Your task to perform on an android device: turn notification dots off Image 0: 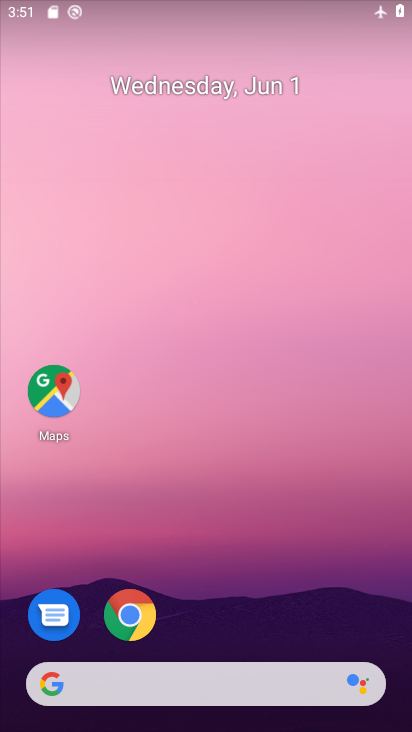
Step 0: drag from (268, 404) to (232, 170)
Your task to perform on an android device: turn notification dots off Image 1: 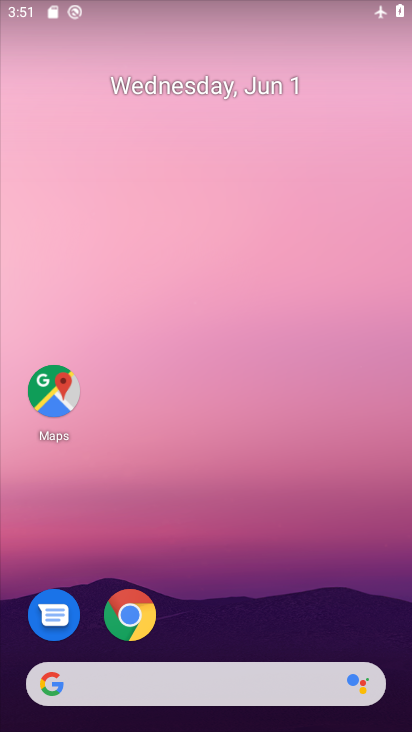
Step 1: drag from (252, 452) to (303, 170)
Your task to perform on an android device: turn notification dots off Image 2: 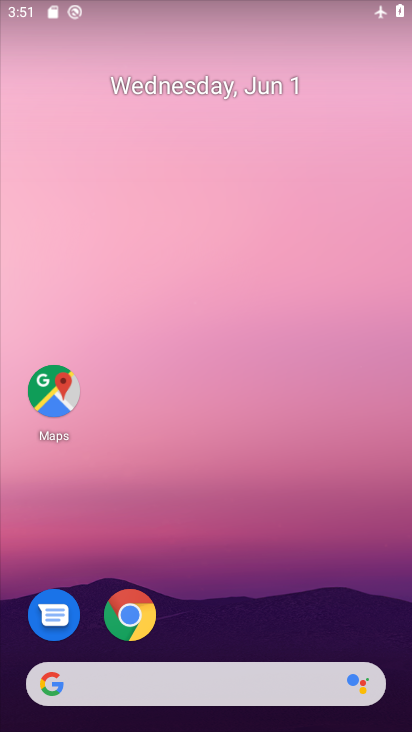
Step 2: drag from (242, 534) to (308, 102)
Your task to perform on an android device: turn notification dots off Image 3: 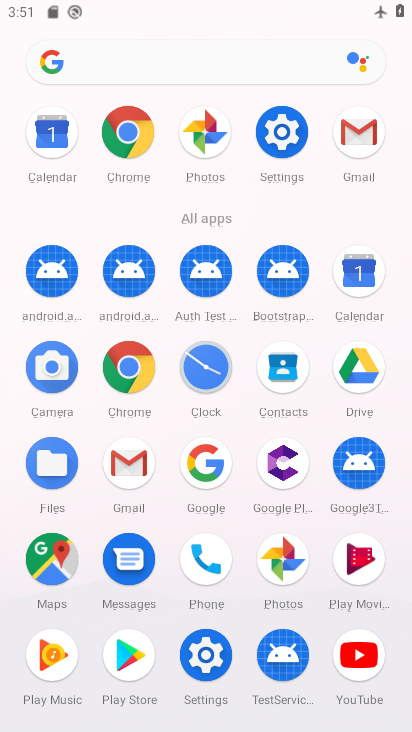
Step 3: click (291, 129)
Your task to perform on an android device: turn notification dots off Image 4: 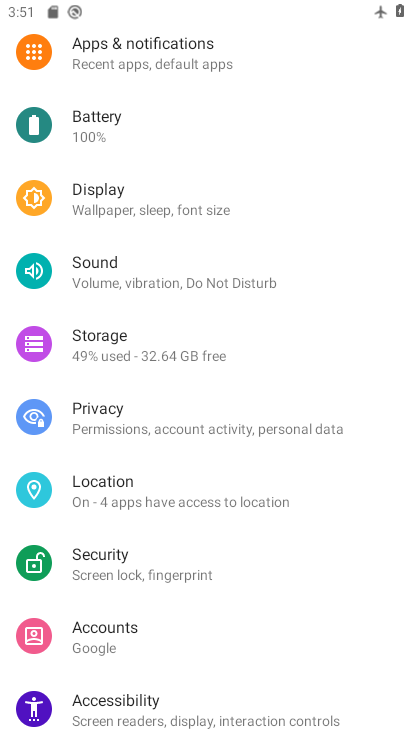
Step 4: drag from (222, 168) to (184, 577)
Your task to perform on an android device: turn notification dots off Image 5: 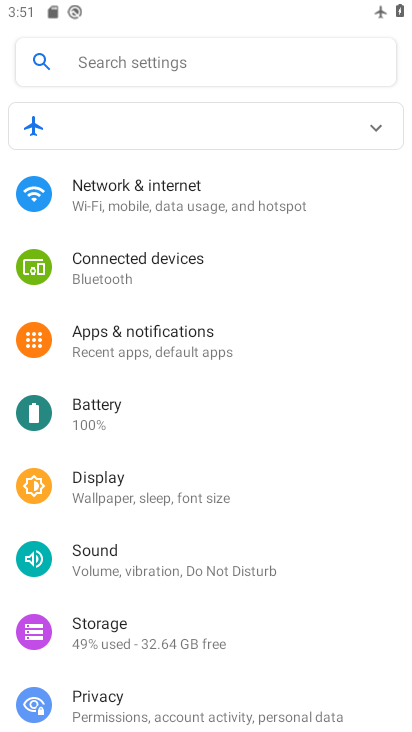
Step 5: click (182, 334)
Your task to perform on an android device: turn notification dots off Image 6: 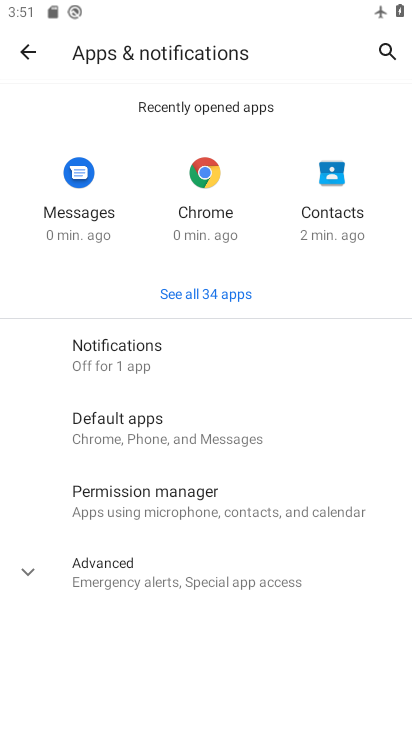
Step 6: click (181, 342)
Your task to perform on an android device: turn notification dots off Image 7: 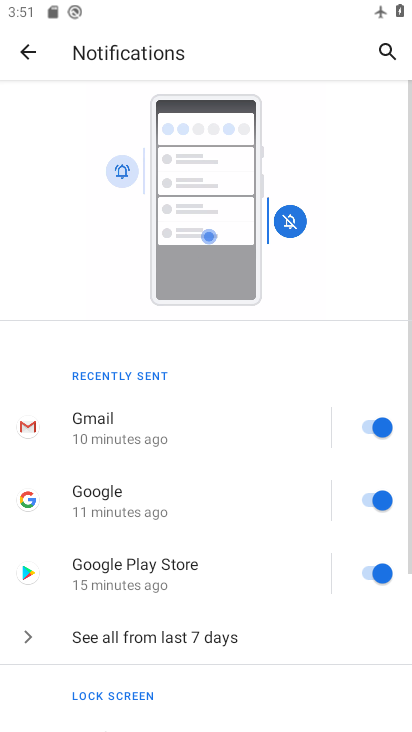
Step 7: drag from (195, 598) to (290, 171)
Your task to perform on an android device: turn notification dots off Image 8: 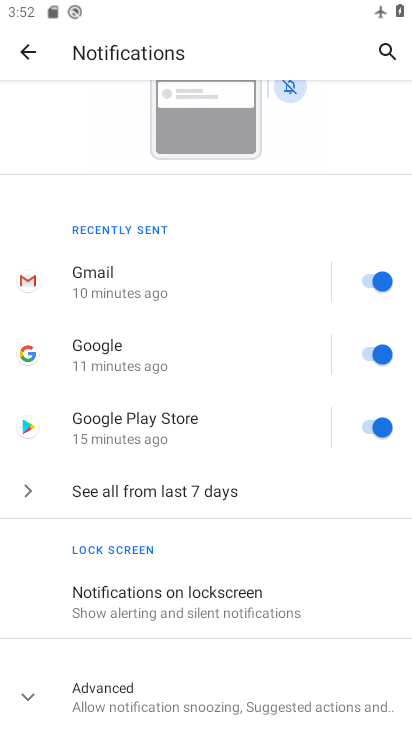
Step 8: click (170, 689)
Your task to perform on an android device: turn notification dots off Image 9: 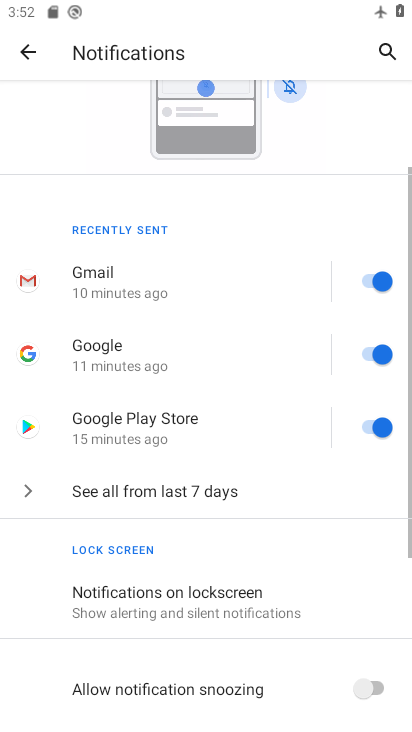
Step 9: drag from (179, 667) to (252, 228)
Your task to perform on an android device: turn notification dots off Image 10: 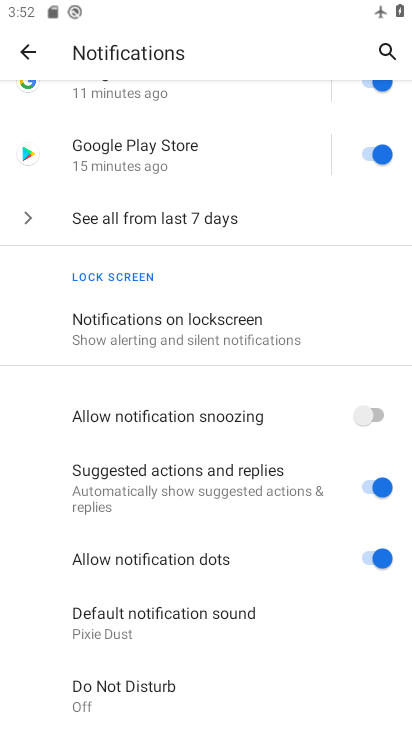
Step 10: click (355, 566)
Your task to perform on an android device: turn notification dots off Image 11: 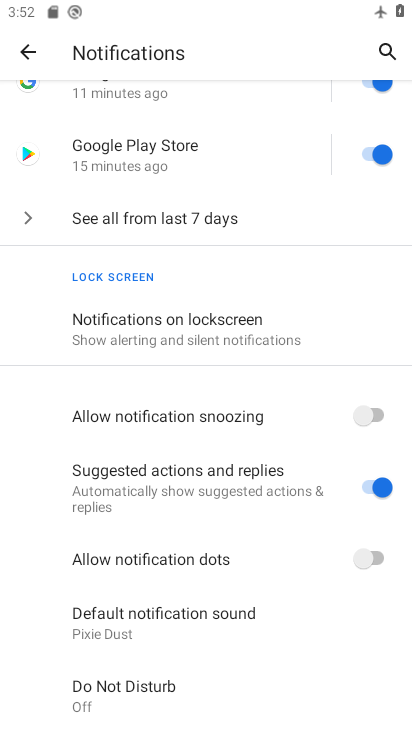
Step 11: task complete